Your task to perform on an android device: Open my contact list Image 0: 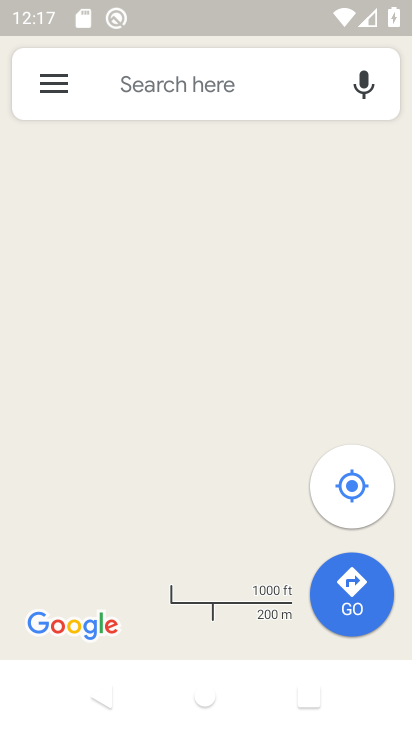
Step 0: press home button
Your task to perform on an android device: Open my contact list Image 1: 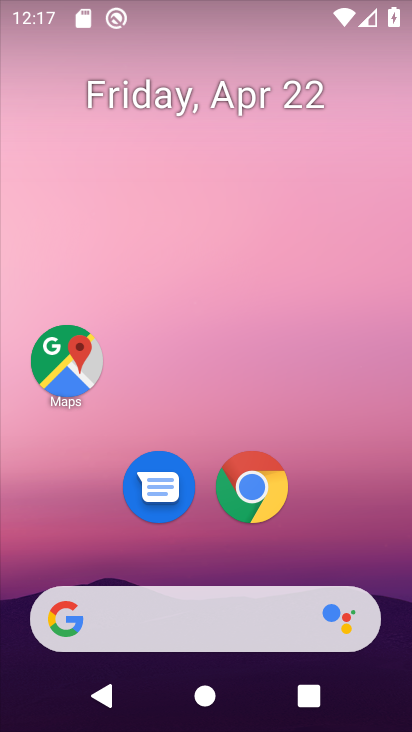
Step 1: drag from (333, 369) to (368, 49)
Your task to perform on an android device: Open my contact list Image 2: 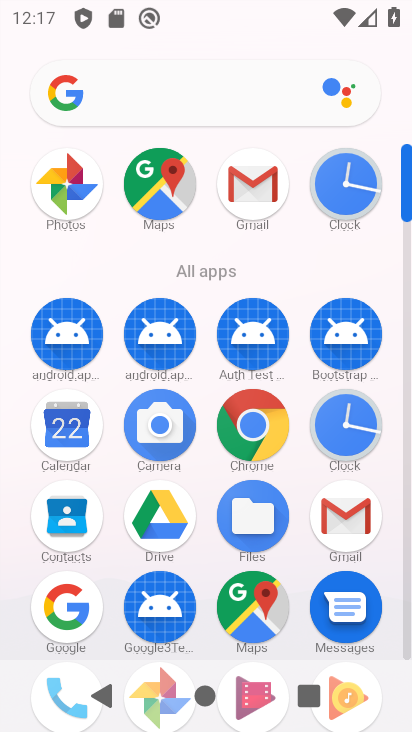
Step 2: click (69, 541)
Your task to perform on an android device: Open my contact list Image 3: 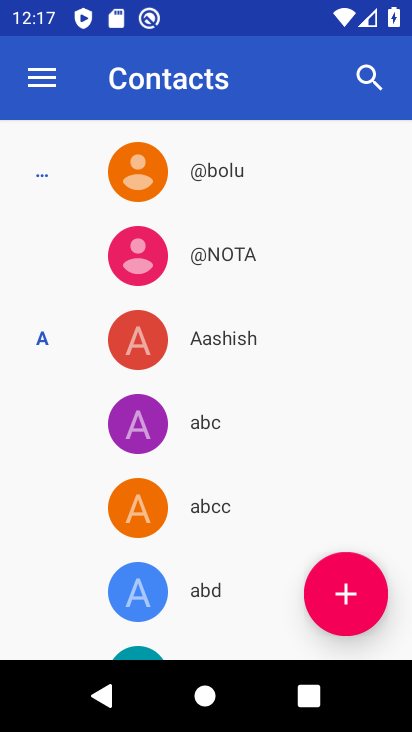
Step 3: task complete